Your task to perform on an android device: Go to Yahoo.com Image 0: 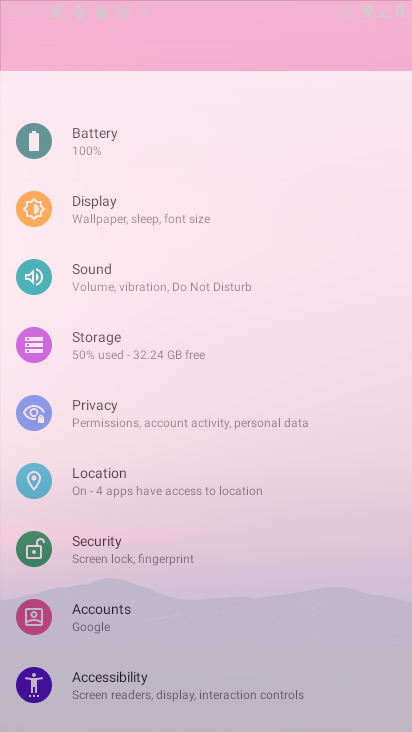
Step 0: press home button
Your task to perform on an android device: Go to Yahoo.com Image 1: 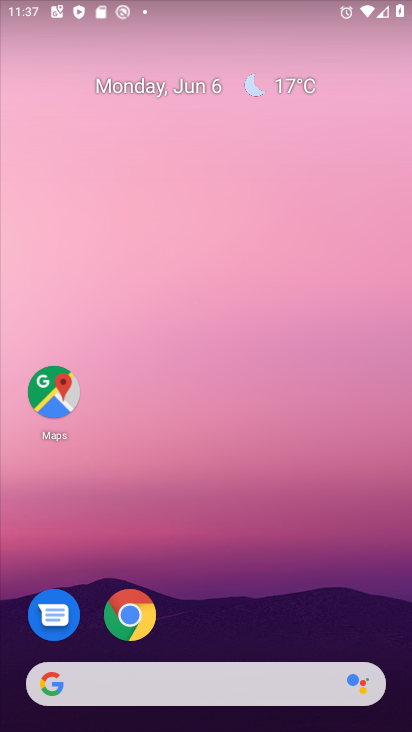
Step 1: click (128, 614)
Your task to perform on an android device: Go to Yahoo.com Image 2: 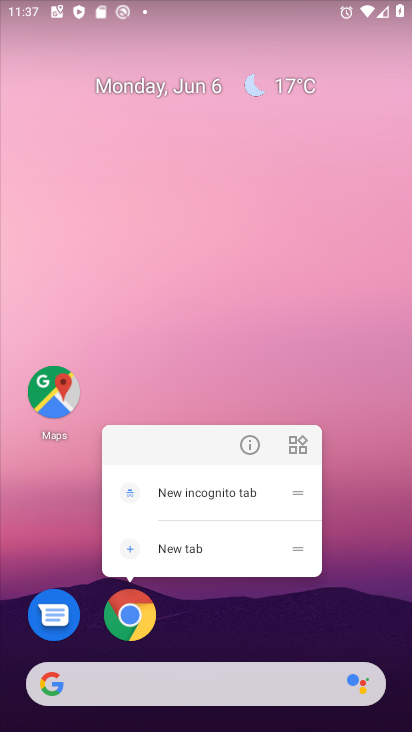
Step 2: click (129, 613)
Your task to perform on an android device: Go to Yahoo.com Image 3: 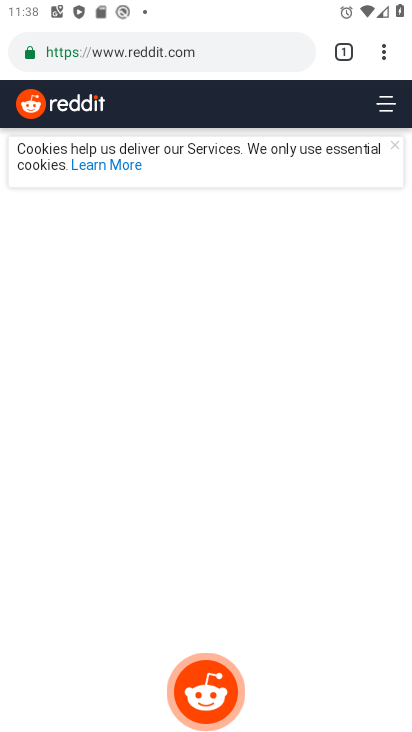
Step 3: task complete